Your task to perform on an android device: Go to settings Image 0: 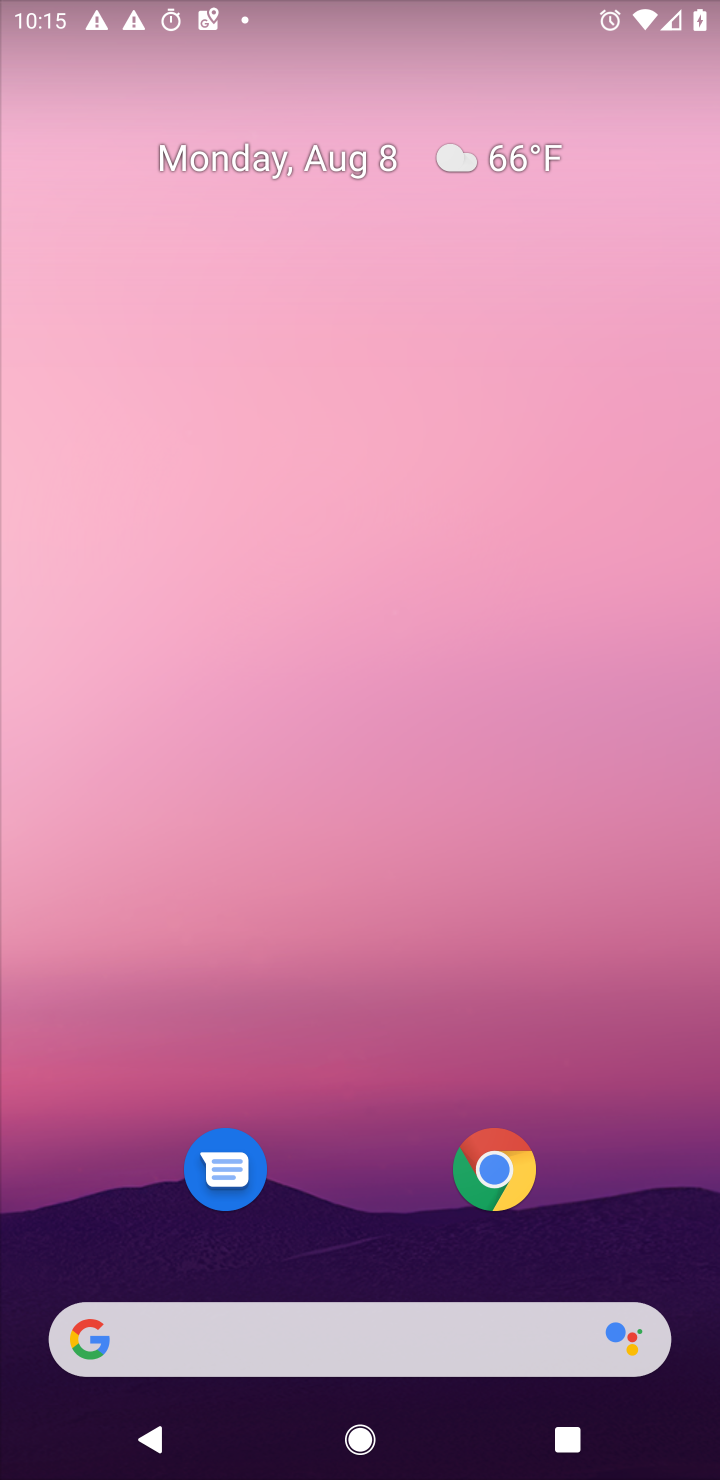
Step 0: drag from (410, 971) to (531, 95)
Your task to perform on an android device: Go to settings Image 1: 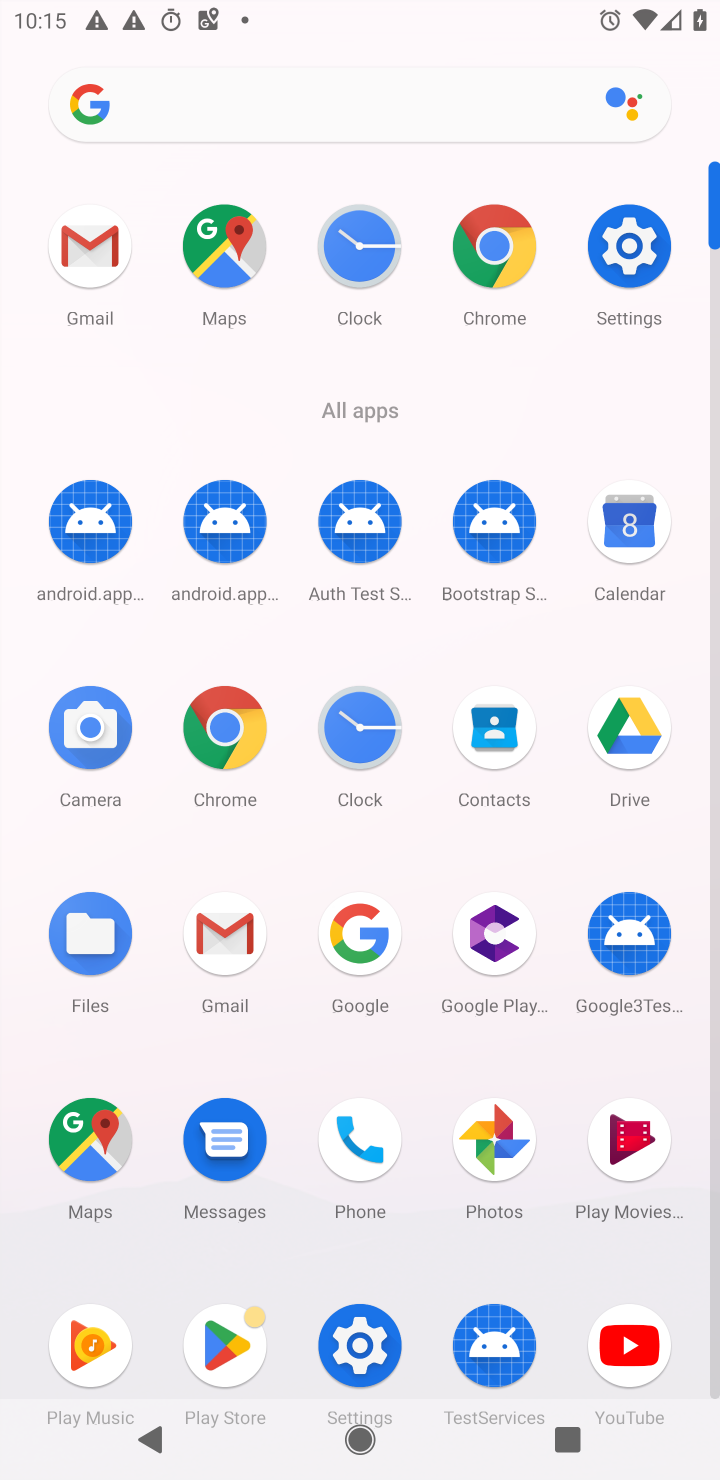
Step 1: click (620, 234)
Your task to perform on an android device: Go to settings Image 2: 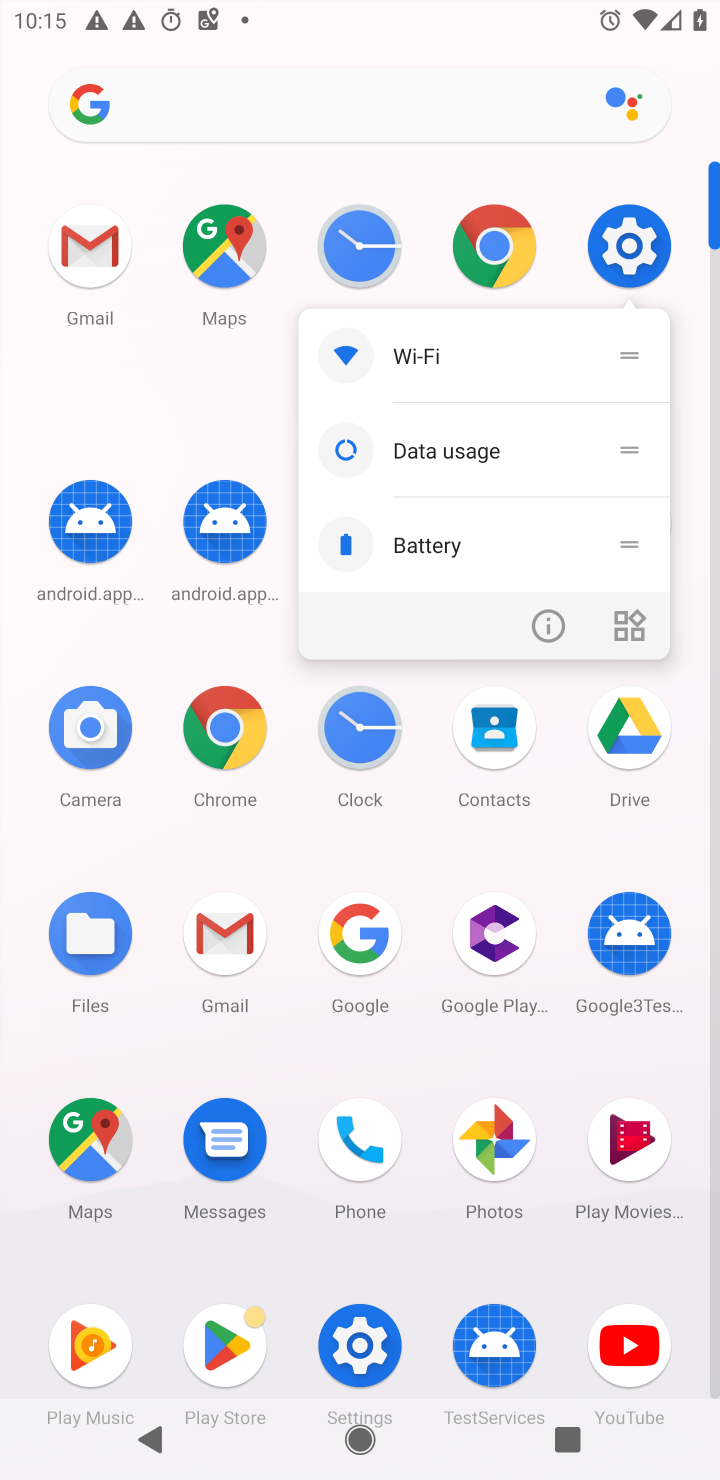
Step 2: click (622, 265)
Your task to perform on an android device: Go to settings Image 3: 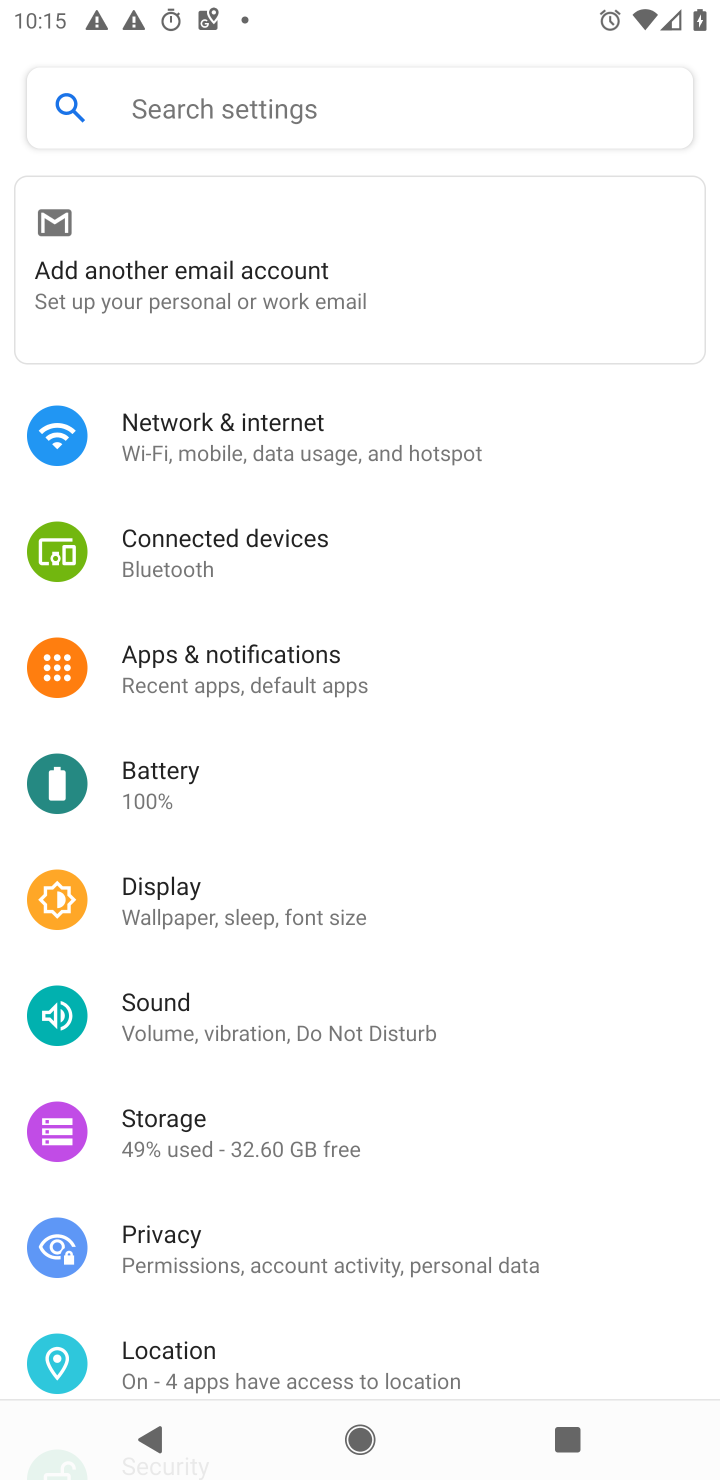
Step 3: task complete